Your task to perform on an android device: Open maps Image 0: 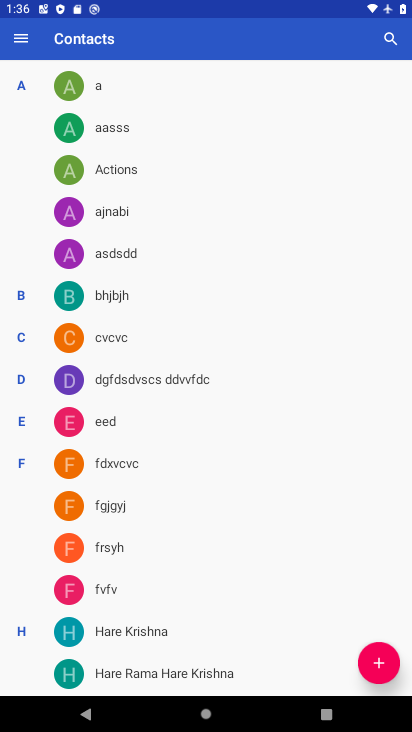
Step 0: press home button
Your task to perform on an android device: Open maps Image 1: 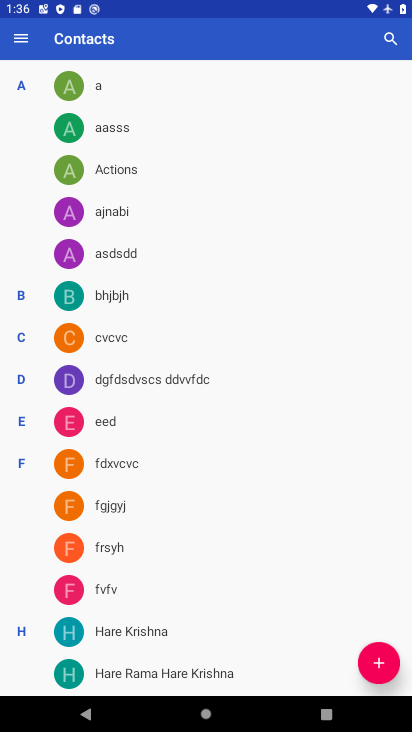
Step 1: press home button
Your task to perform on an android device: Open maps Image 2: 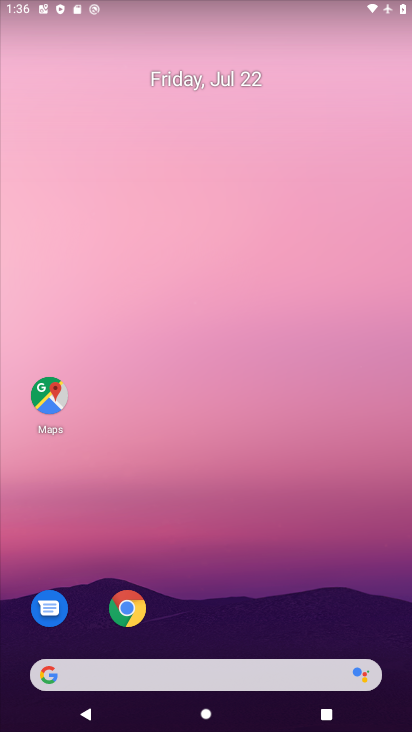
Step 2: drag from (234, 718) to (205, 201)
Your task to perform on an android device: Open maps Image 3: 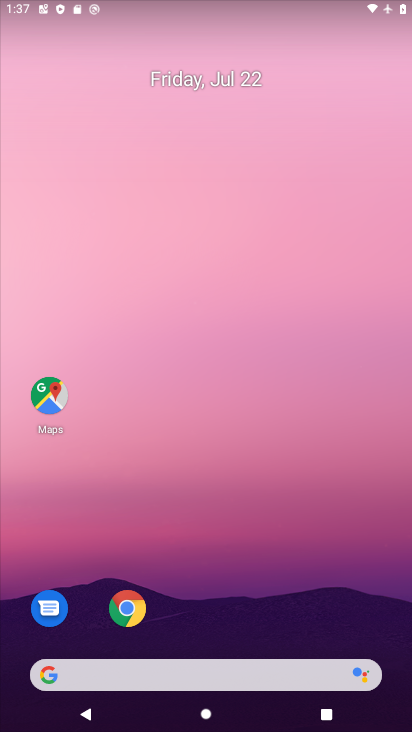
Step 3: drag from (235, 708) to (219, 42)
Your task to perform on an android device: Open maps Image 4: 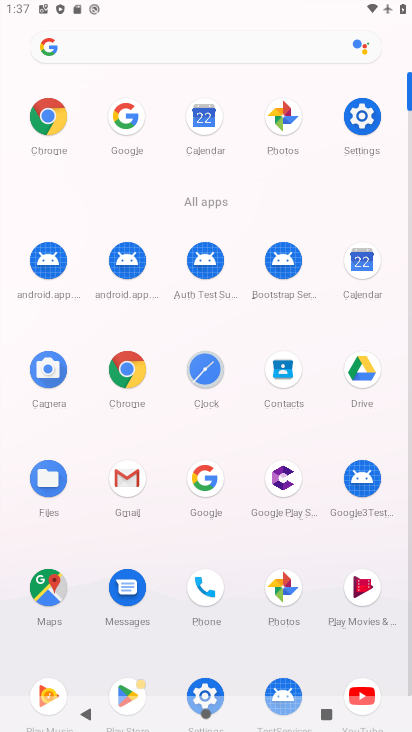
Step 4: click (41, 589)
Your task to perform on an android device: Open maps Image 5: 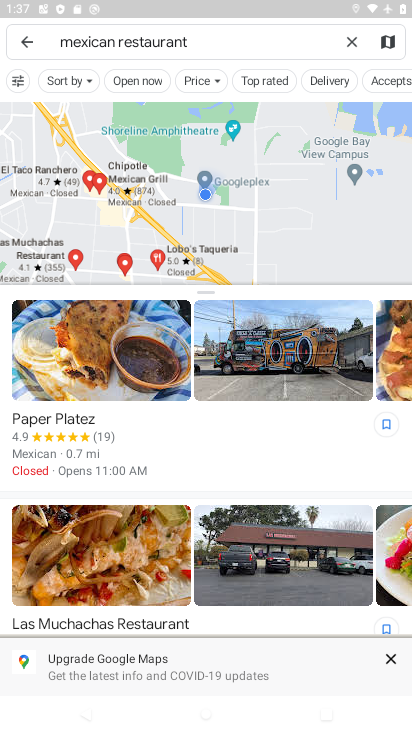
Step 5: task complete